Your task to perform on an android device: Open Youtube and go to "Your channel" Image 0: 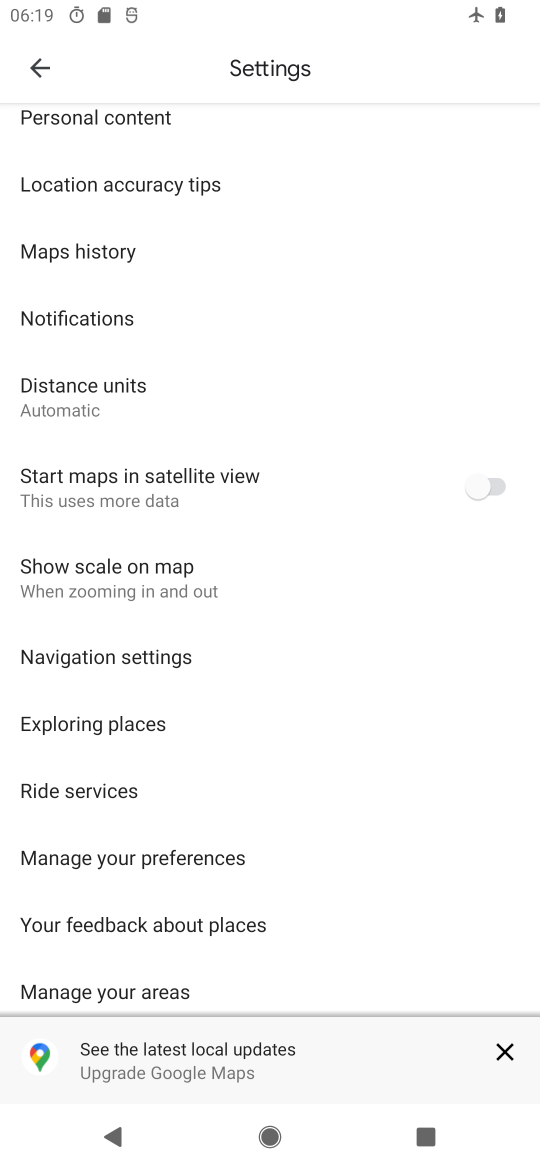
Step 0: press home button
Your task to perform on an android device: Open Youtube and go to "Your channel" Image 1: 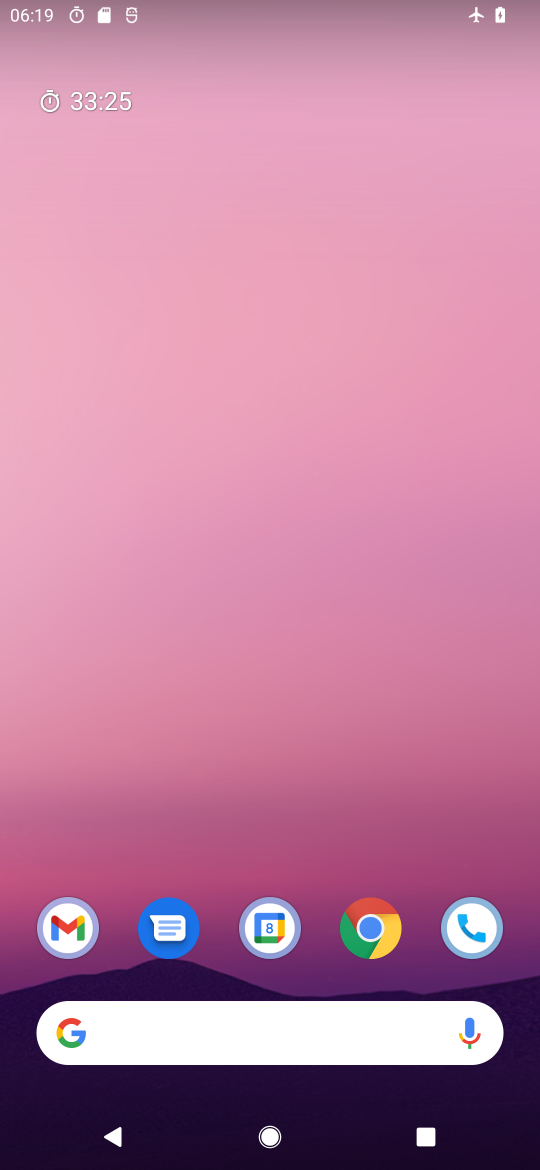
Step 1: drag from (237, 929) to (322, 4)
Your task to perform on an android device: Open Youtube and go to "Your channel" Image 2: 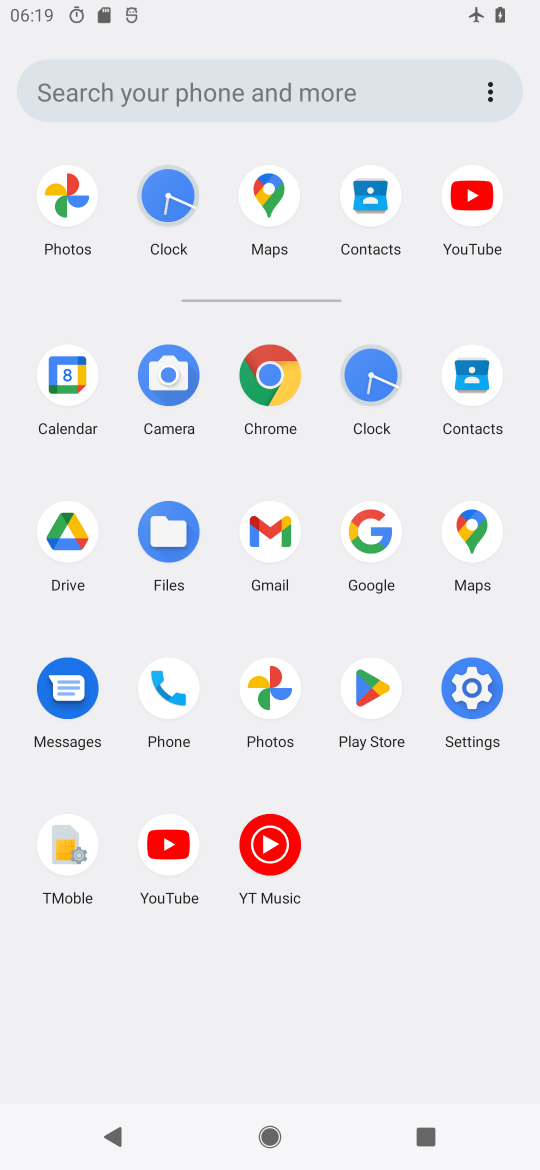
Step 2: click (278, 859)
Your task to perform on an android device: Open Youtube and go to "Your channel" Image 3: 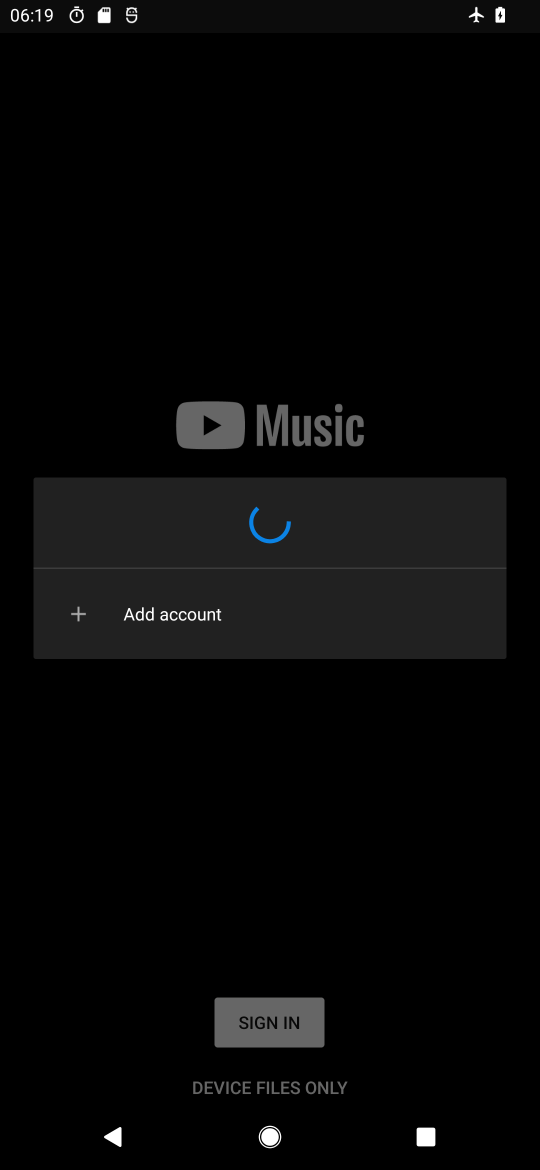
Step 3: press home button
Your task to perform on an android device: Open Youtube and go to "Your channel" Image 4: 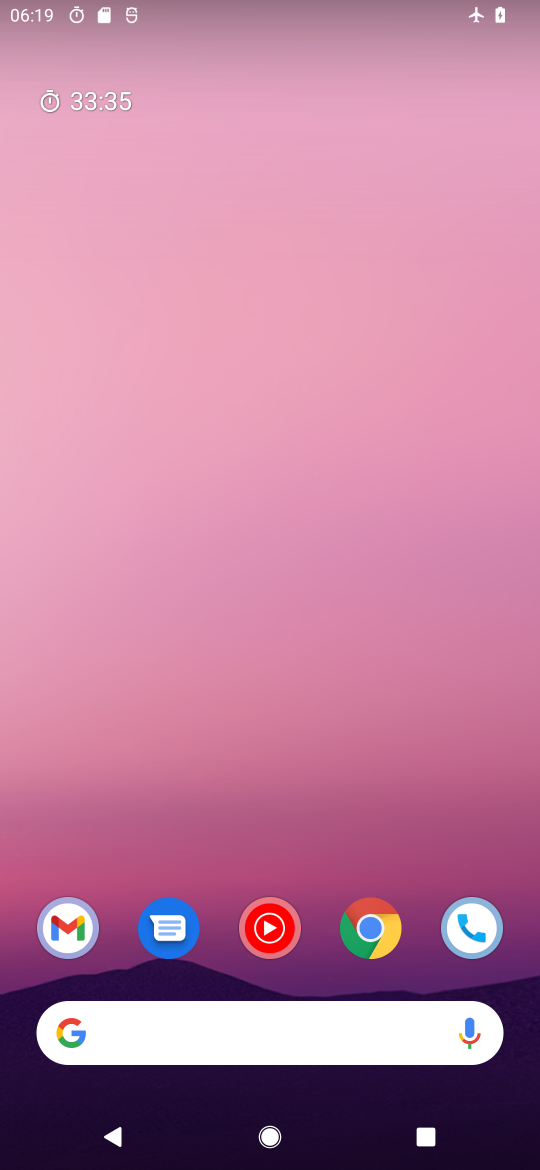
Step 4: drag from (237, 977) to (222, 254)
Your task to perform on an android device: Open Youtube and go to "Your channel" Image 5: 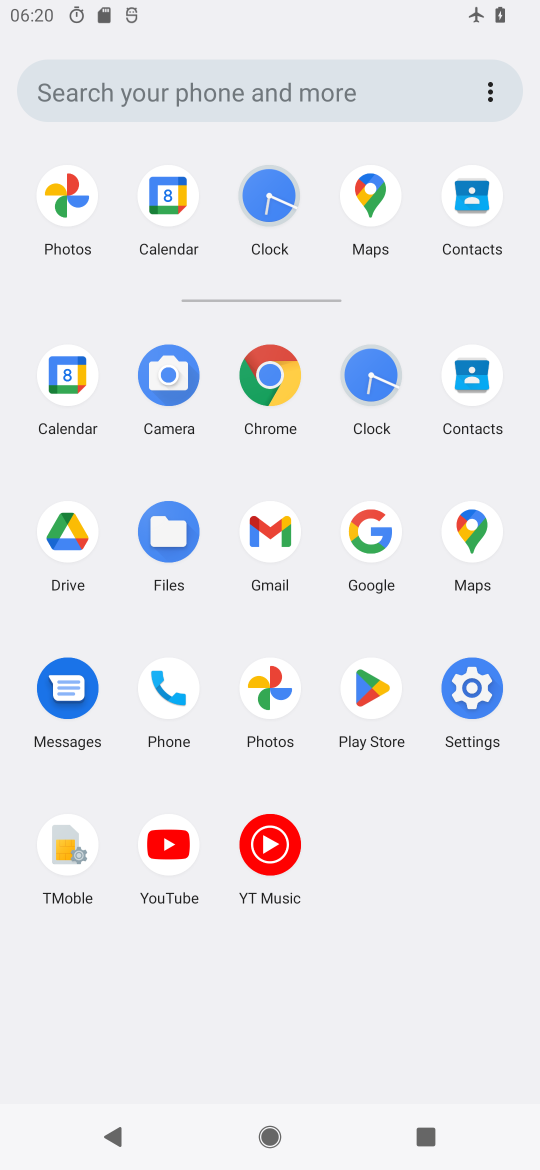
Step 5: click (160, 867)
Your task to perform on an android device: Open Youtube and go to "Your channel" Image 6: 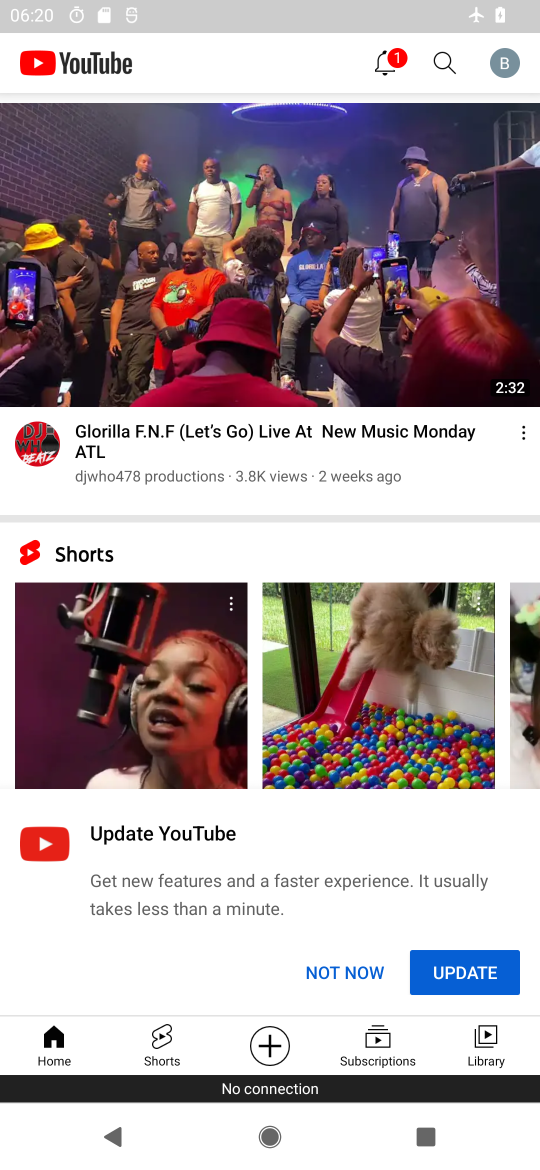
Step 6: click (502, 62)
Your task to perform on an android device: Open Youtube and go to "Your channel" Image 7: 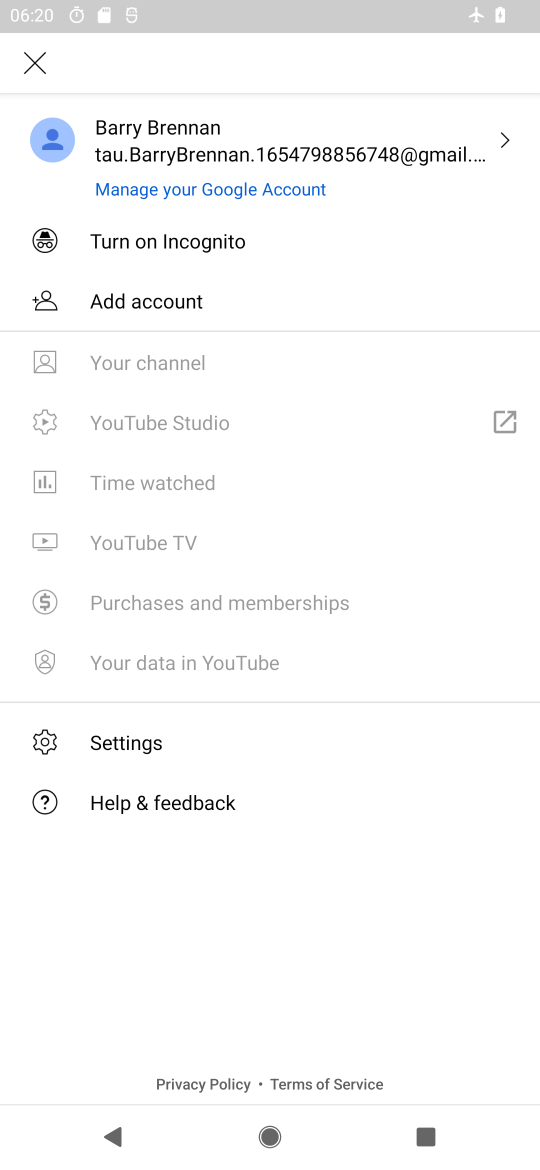
Step 7: click (207, 365)
Your task to perform on an android device: Open Youtube and go to "Your channel" Image 8: 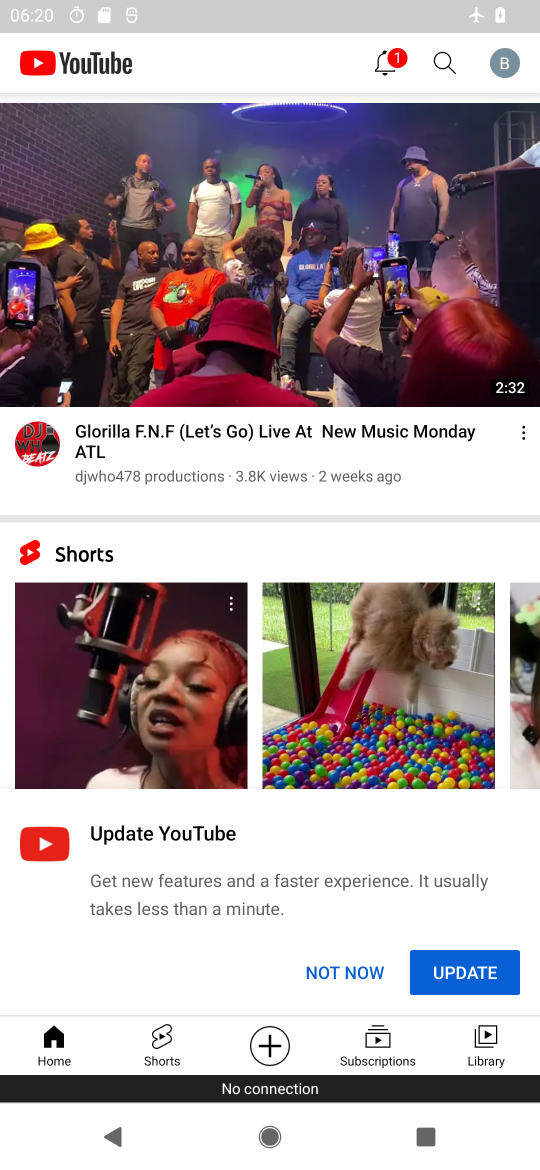
Step 8: task complete